Your task to perform on an android device: show emergency info Image 0: 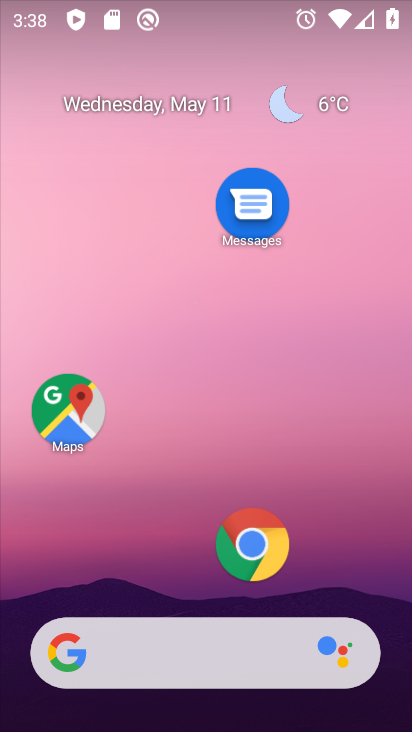
Step 0: drag from (212, 507) to (278, 126)
Your task to perform on an android device: show emergency info Image 1: 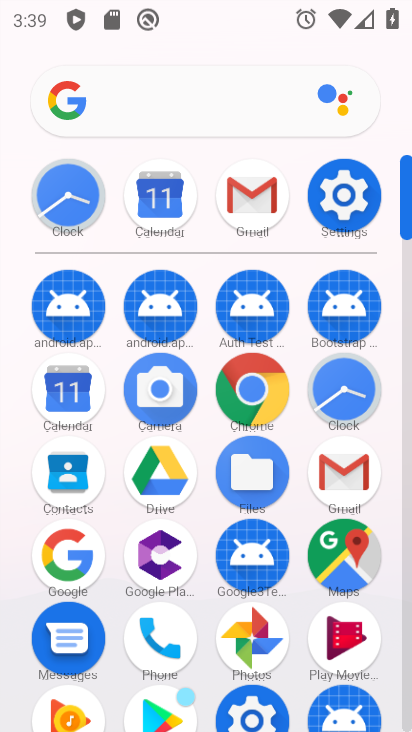
Step 1: click (370, 199)
Your task to perform on an android device: show emergency info Image 2: 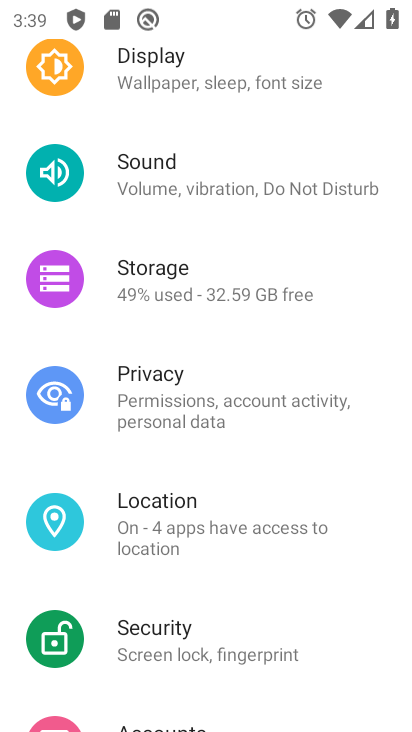
Step 2: drag from (207, 597) to (362, 28)
Your task to perform on an android device: show emergency info Image 3: 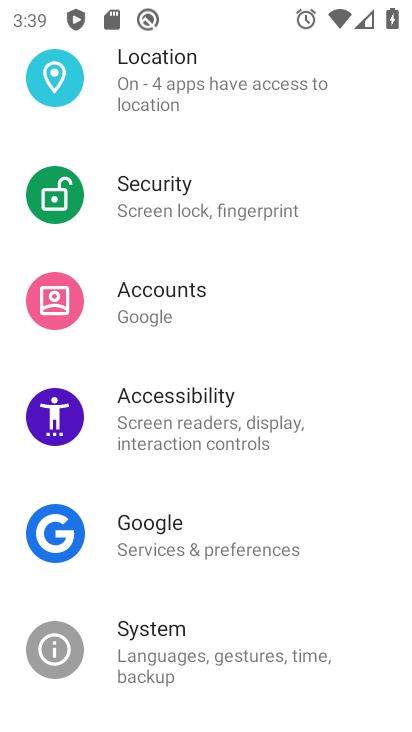
Step 3: drag from (180, 530) to (329, 71)
Your task to perform on an android device: show emergency info Image 4: 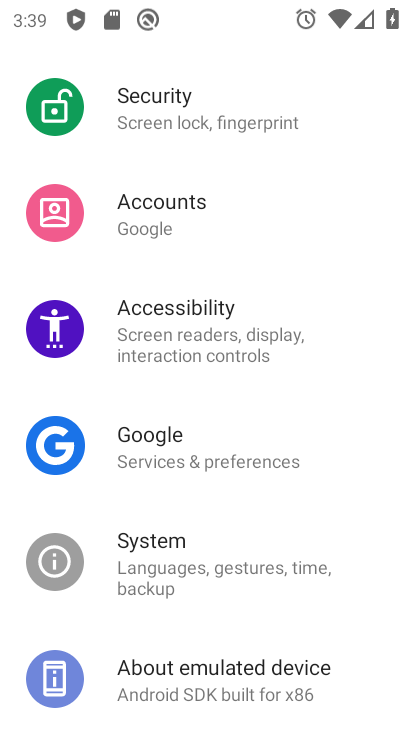
Step 4: click (198, 668)
Your task to perform on an android device: show emergency info Image 5: 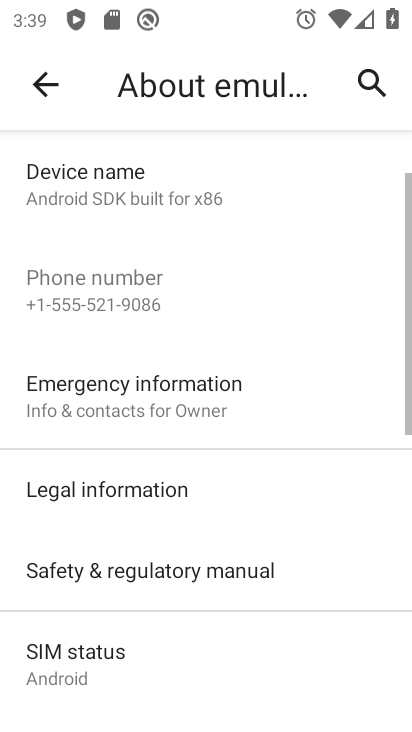
Step 5: click (149, 380)
Your task to perform on an android device: show emergency info Image 6: 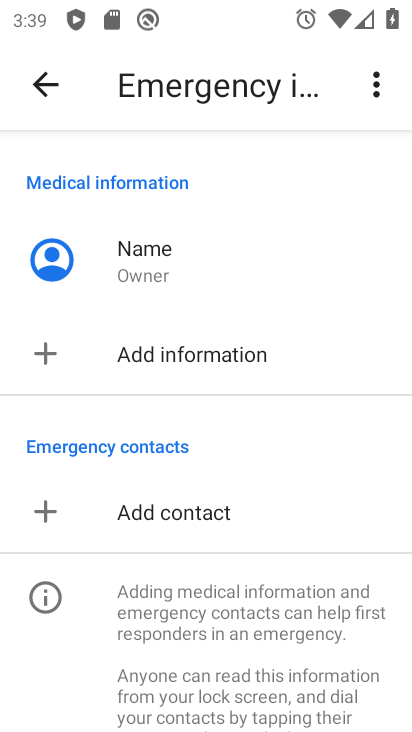
Step 6: task complete